Your task to perform on an android device: Show me recent news Image 0: 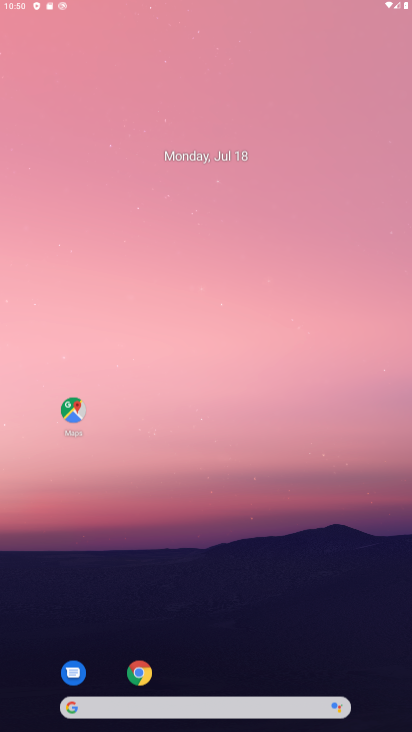
Step 0: press home button
Your task to perform on an android device: Show me recent news Image 1: 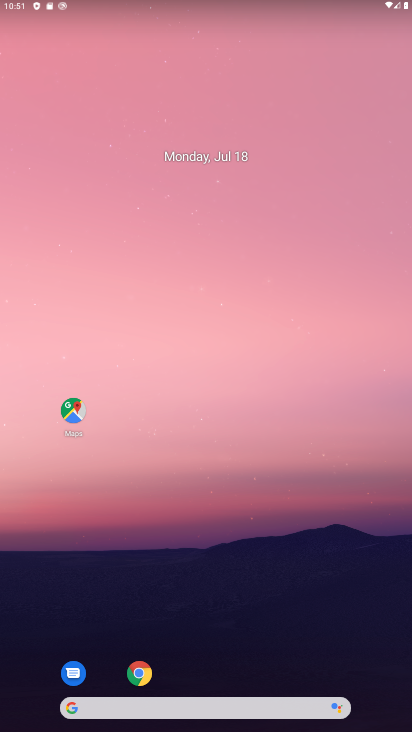
Step 1: task complete